Your task to perform on an android device: Do I have any events this weekend? Image 0: 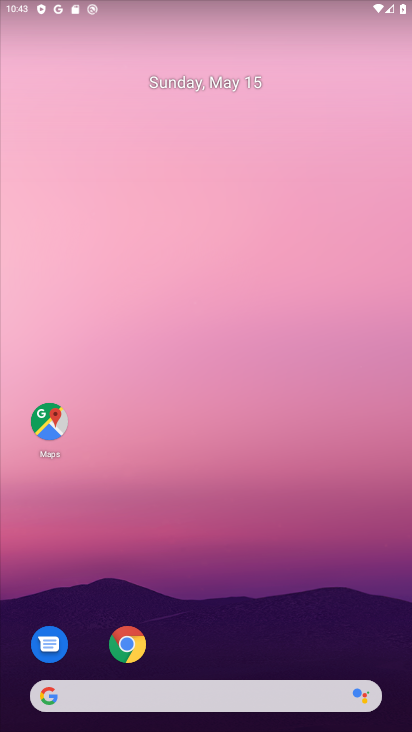
Step 0: click (142, 653)
Your task to perform on an android device: Do I have any events this weekend? Image 1: 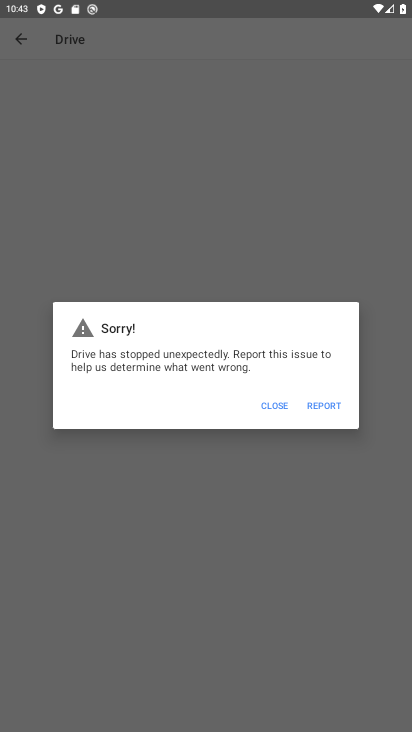
Step 1: press home button
Your task to perform on an android device: Do I have any events this weekend? Image 2: 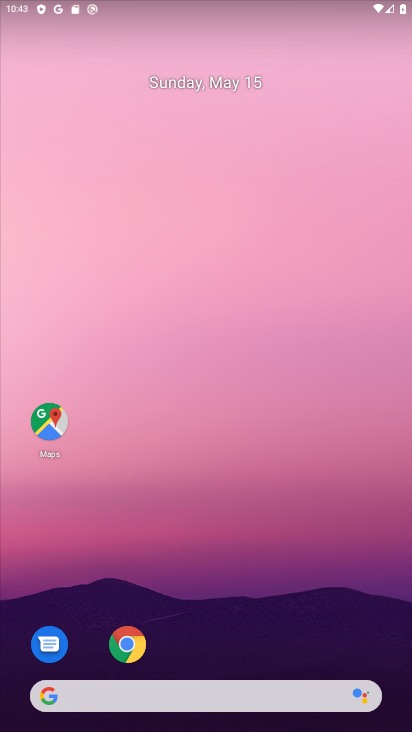
Step 2: drag from (242, 637) to (225, 193)
Your task to perform on an android device: Do I have any events this weekend? Image 3: 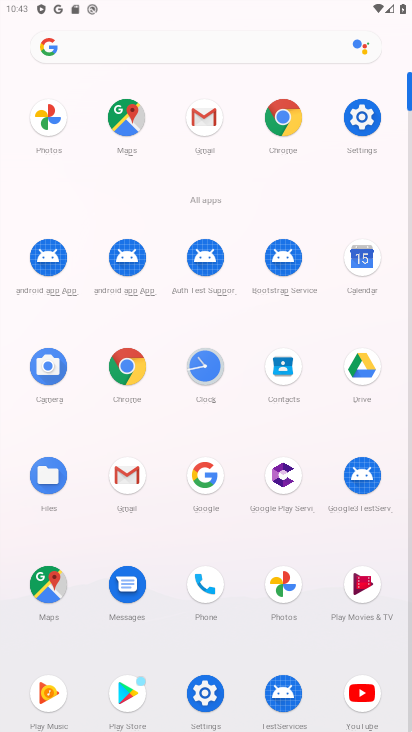
Step 3: click (282, 374)
Your task to perform on an android device: Do I have any events this weekend? Image 4: 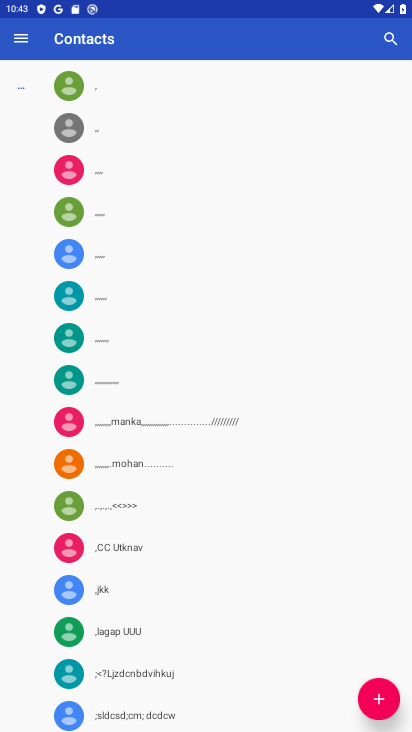
Step 4: press home button
Your task to perform on an android device: Do I have any events this weekend? Image 5: 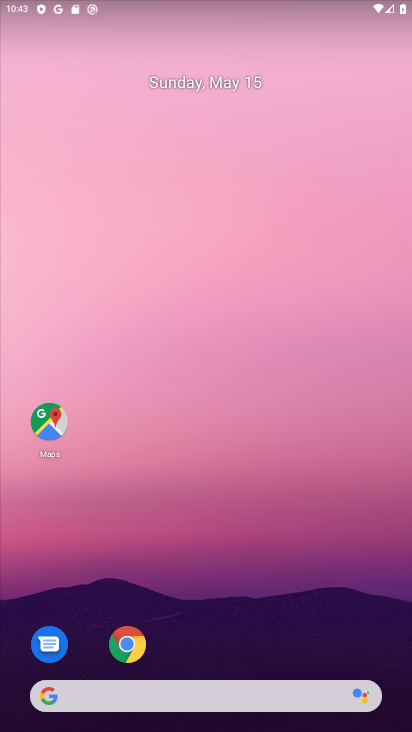
Step 5: drag from (223, 648) to (185, 206)
Your task to perform on an android device: Do I have any events this weekend? Image 6: 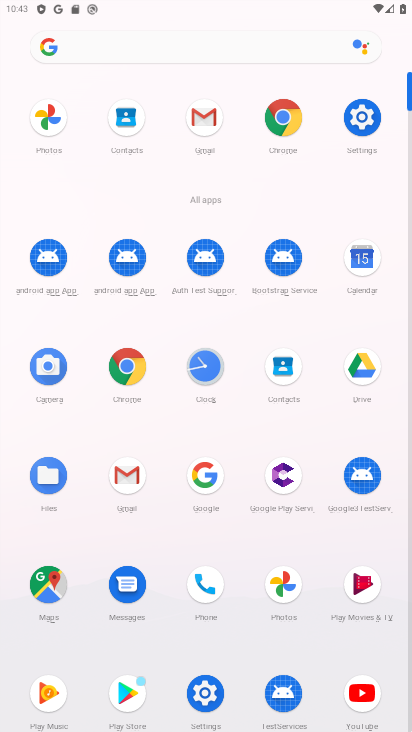
Step 6: click (372, 255)
Your task to perform on an android device: Do I have any events this weekend? Image 7: 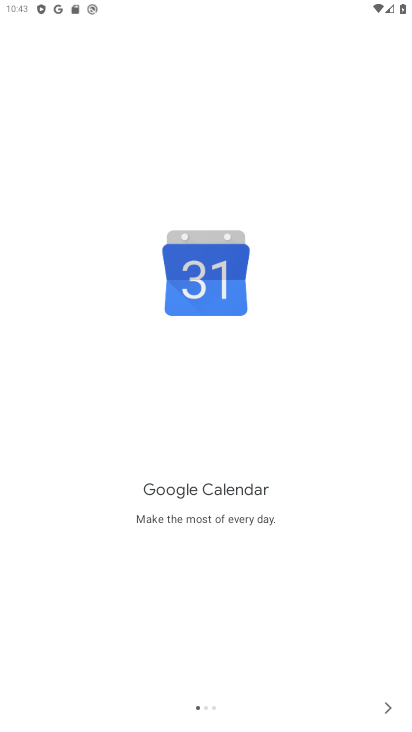
Step 7: click (389, 712)
Your task to perform on an android device: Do I have any events this weekend? Image 8: 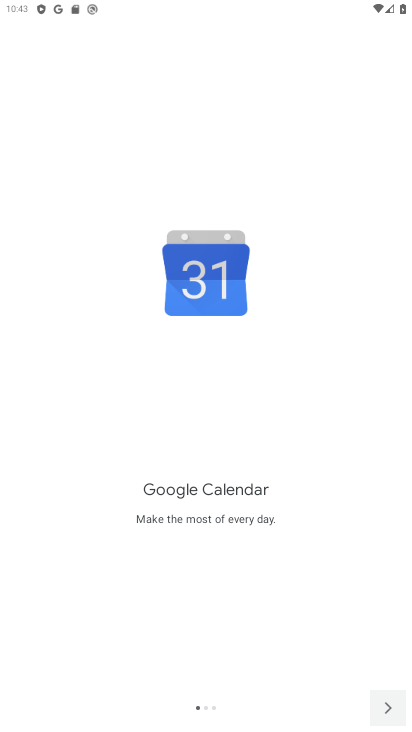
Step 8: click (389, 712)
Your task to perform on an android device: Do I have any events this weekend? Image 9: 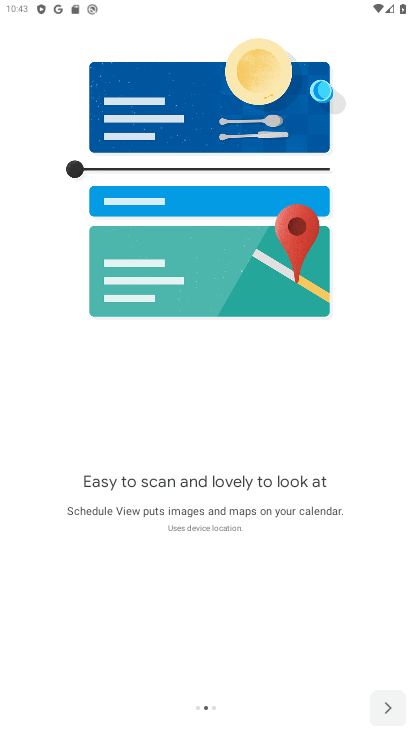
Step 9: click (389, 712)
Your task to perform on an android device: Do I have any events this weekend? Image 10: 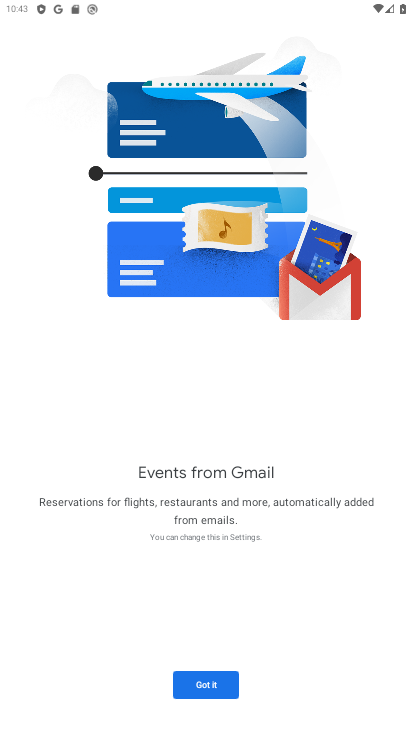
Step 10: click (389, 712)
Your task to perform on an android device: Do I have any events this weekend? Image 11: 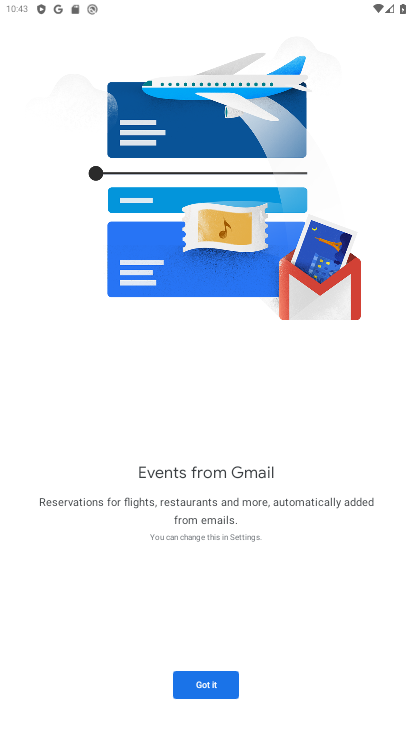
Step 11: click (219, 680)
Your task to perform on an android device: Do I have any events this weekend? Image 12: 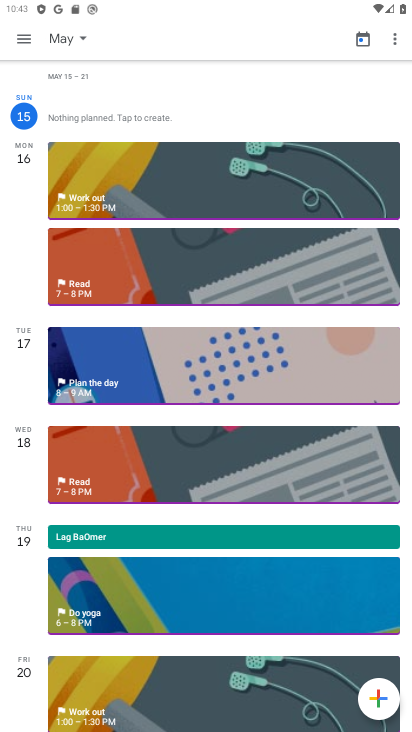
Step 12: click (28, 39)
Your task to perform on an android device: Do I have any events this weekend? Image 13: 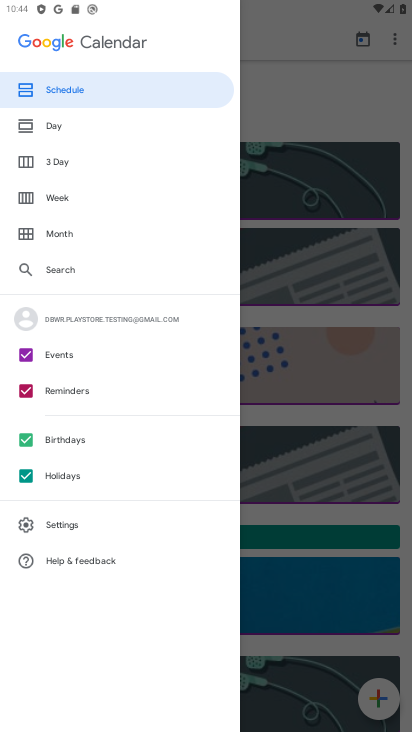
Step 13: click (25, 481)
Your task to perform on an android device: Do I have any events this weekend? Image 14: 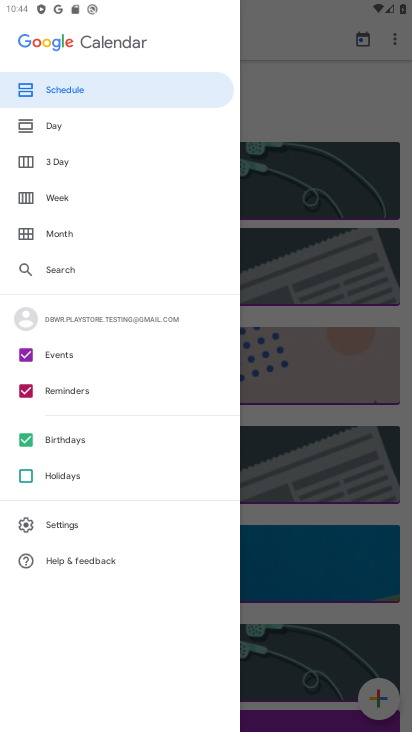
Step 14: click (25, 438)
Your task to perform on an android device: Do I have any events this weekend? Image 15: 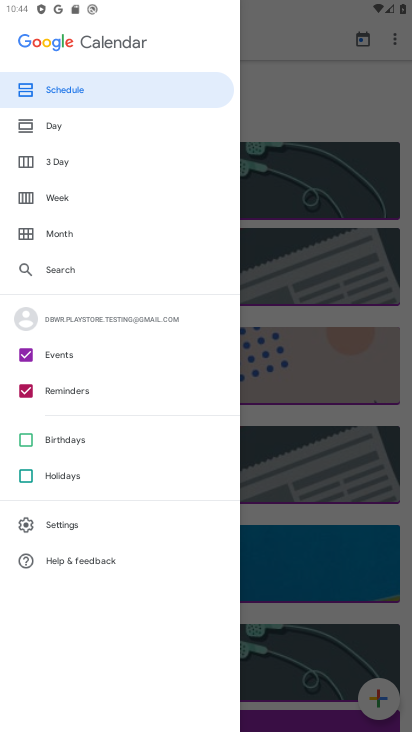
Step 15: click (26, 396)
Your task to perform on an android device: Do I have any events this weekend? Image 16: 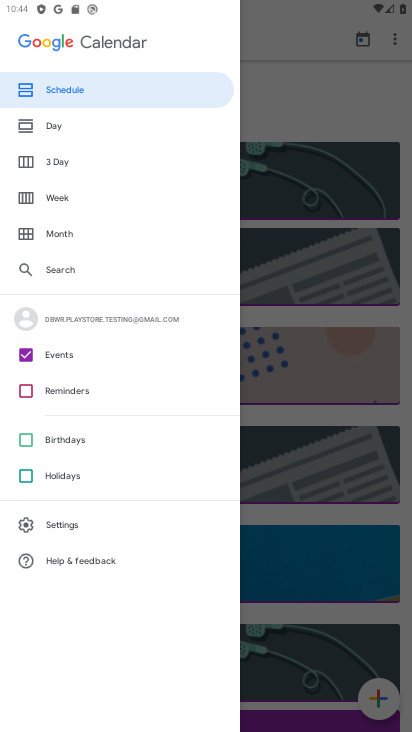
Step 16: click (82, 164)
Your task to perform on an android device: Do I have any events this weekend? Image 17: 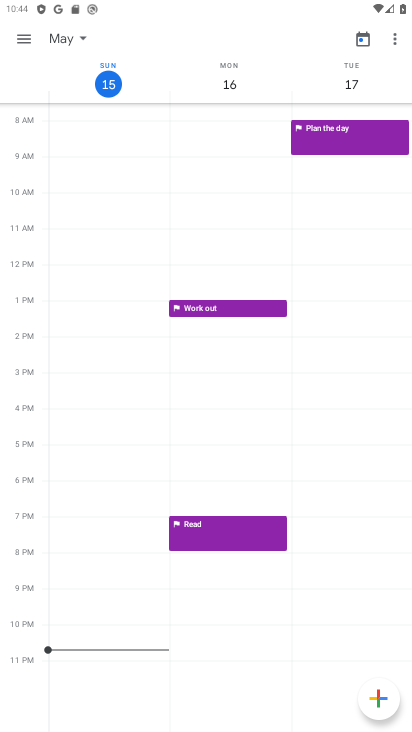
Step 17: click (81, 37)
Your task to perform on an android device: Do I have any events this weekend? Image 18: 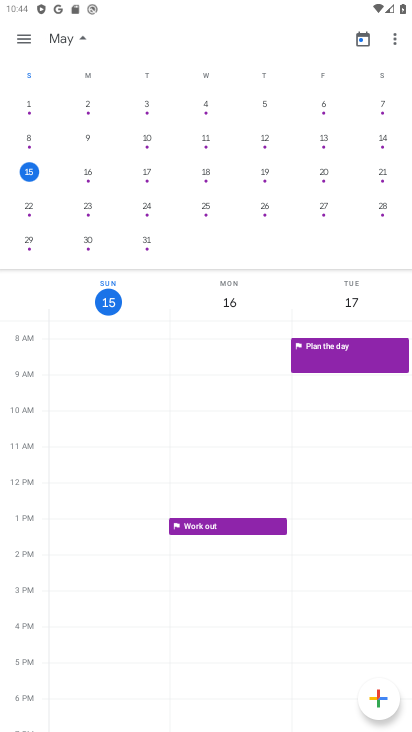
Step 18: click (326, 172)
Your task to perform on an android device: Do I have any events this weekend? Image 19: 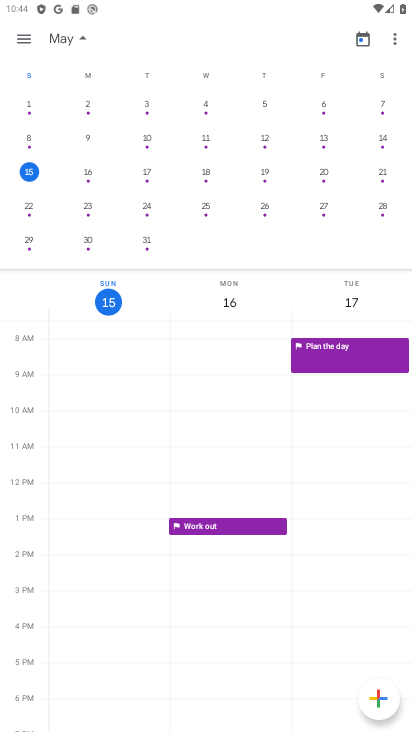
Step 19: click (390, 172)
Your task to perform on an android device: Do I have any events this weekend? Image 20: 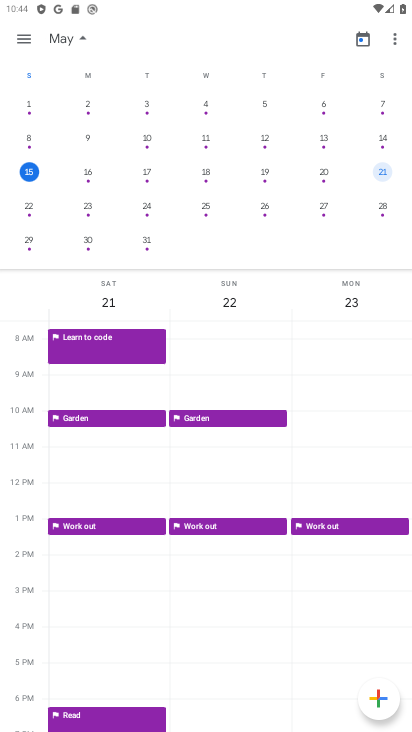
Step 20: task complete